Your task to perform on an android device: What's the time in New York? Image 0: 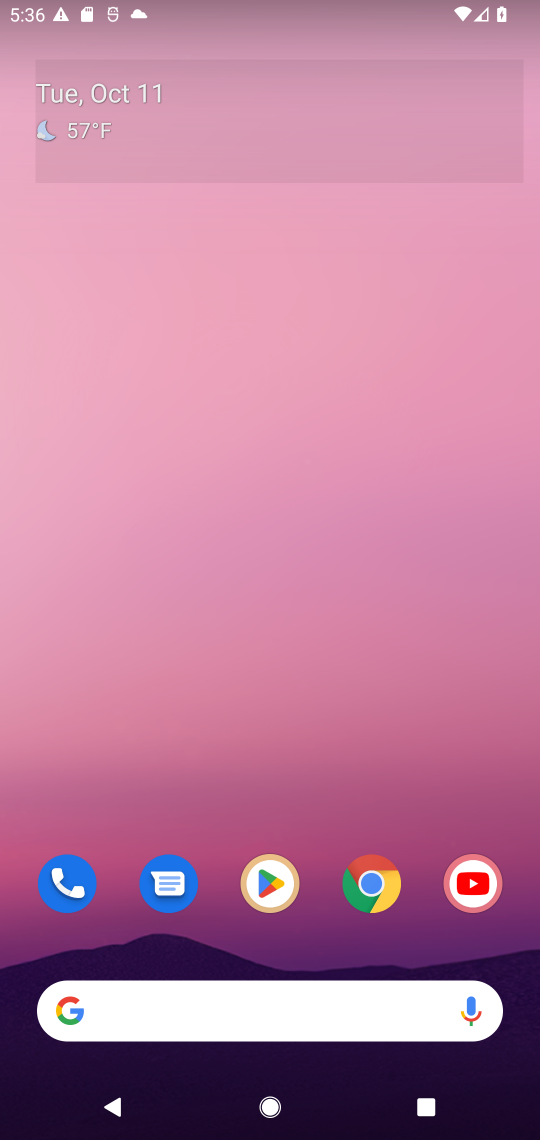
Step 0: drag from (314, 943) to (302, 190)
Your task to perform on an android device: What's the time in New York? Image 1: 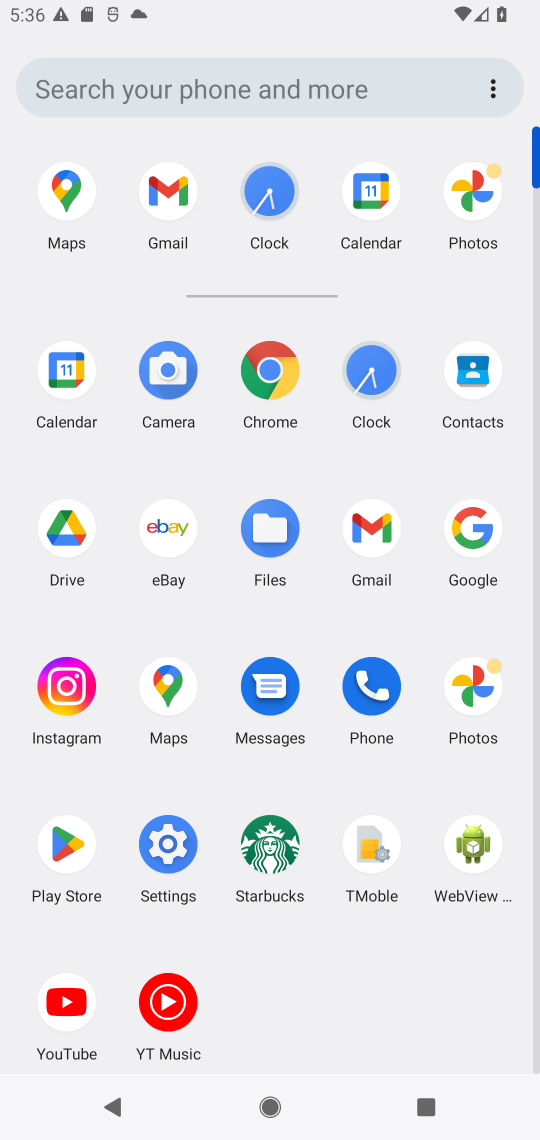
Step 1: click (278, 367)
Your task to perform on an android device: What's the time in New York? Image 2: 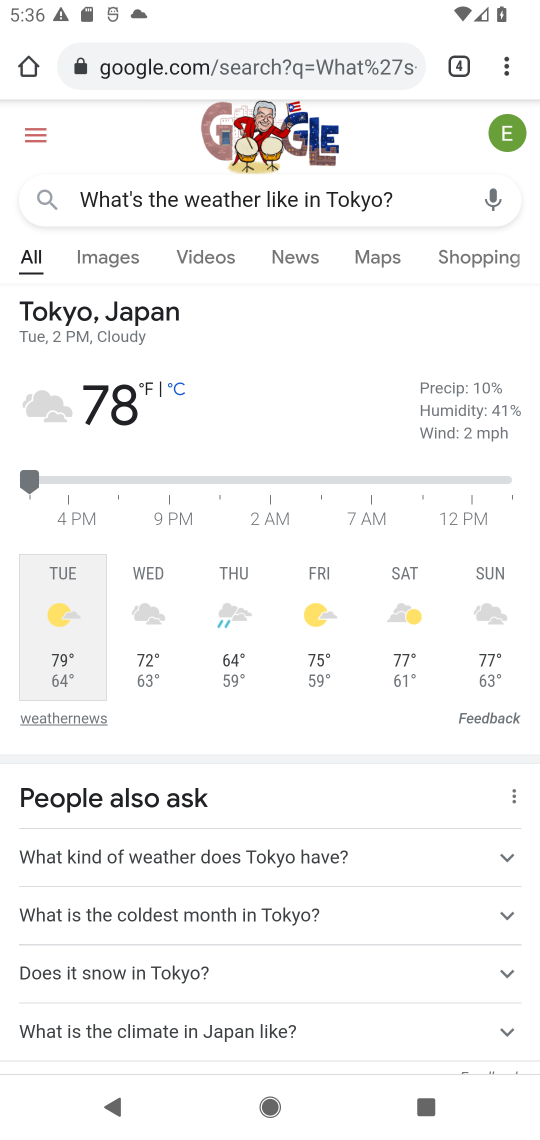
Step 2: click (197, 48)
Your task to perform on an android device: What's the time in New York? Image 3: 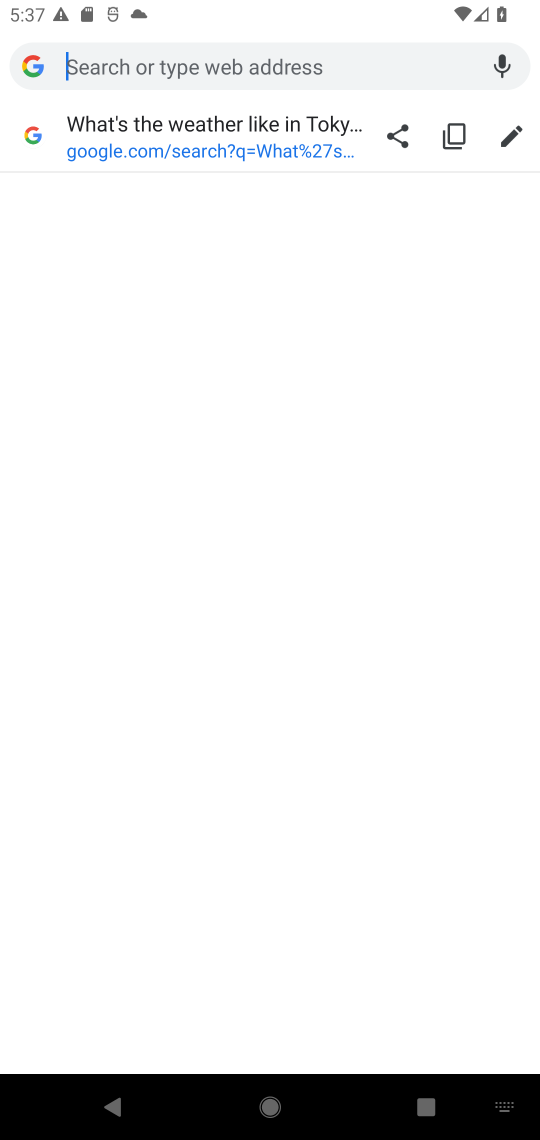
Step 3: type "What's the time in New York?"
Your task to perform on an android device: What's the time in New York? Image 4: 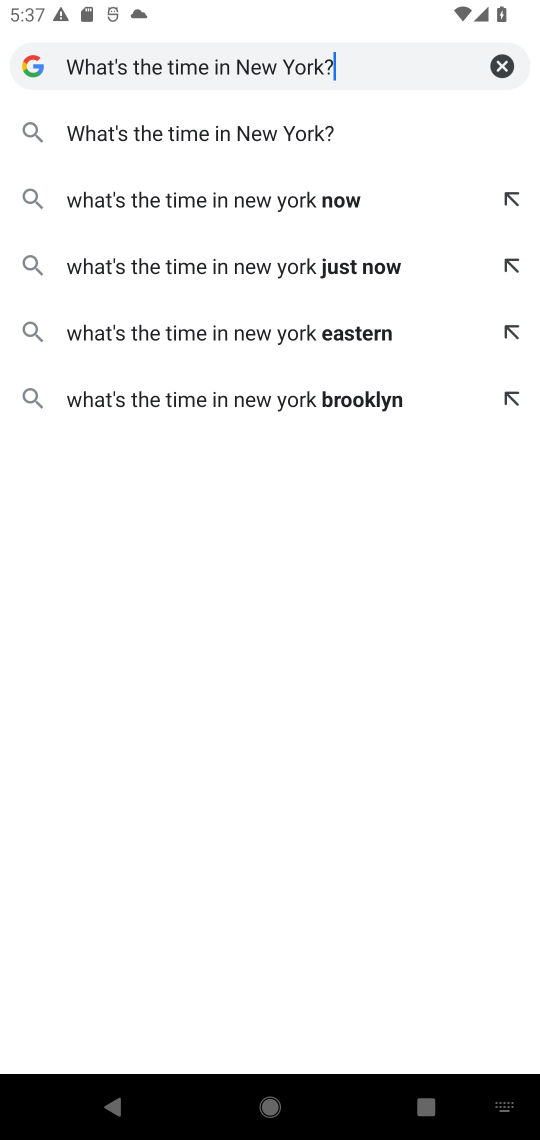
Step 4: press enter
Your task to perform on an android device: What's the time in New York? Image 5: 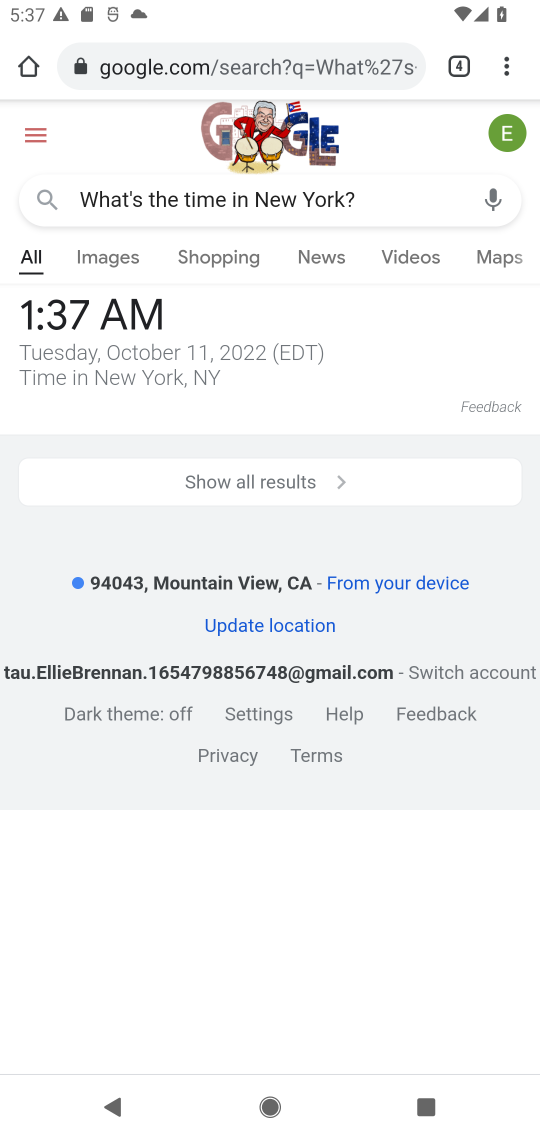
Step 5: task complete